Your task to perform on an android device: open sync settings in chrome Image 0: 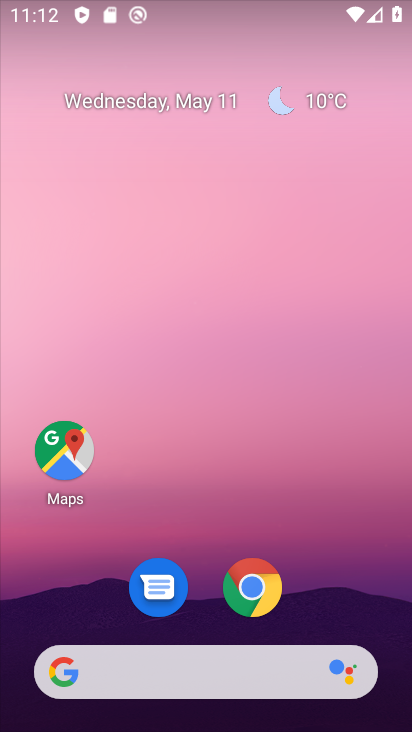
Step 0: click (265, 604)
Your task to perform on an android device: open sync settings in chrome Image 1: 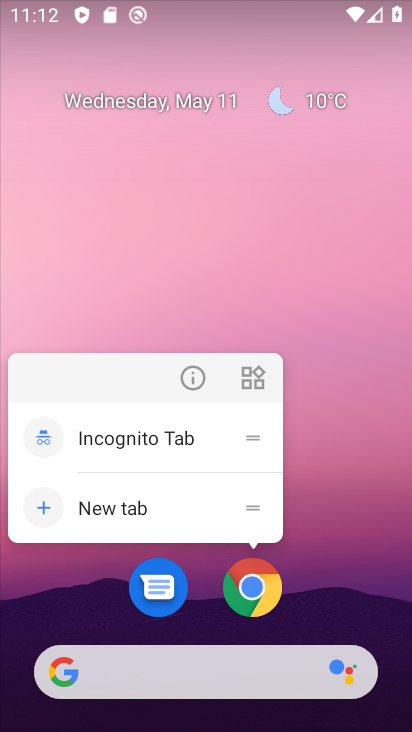
Step 1: click (246, 583)
Your task to perform on an android device: open sync settings in chrome Image 2: 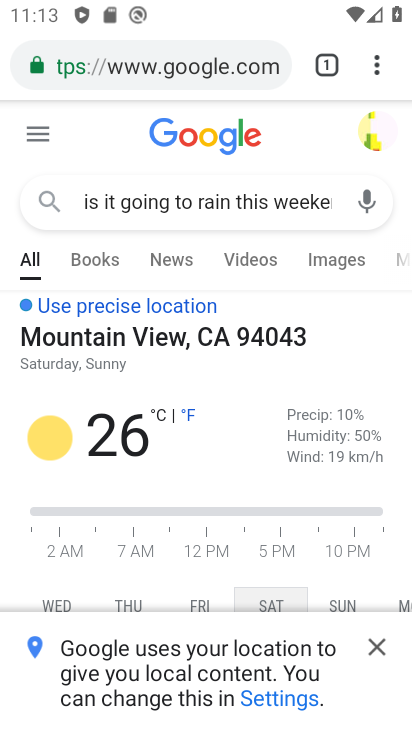
Step 2: drag from (371, 69) to (191, 648)
Your task to perform on an android device: open sync settings in chrome Image 3: 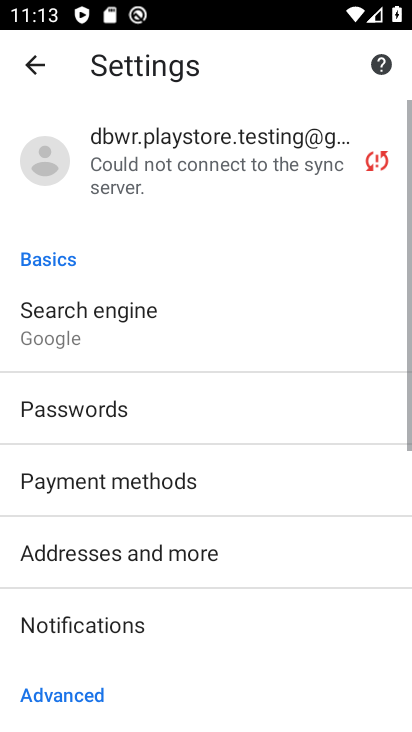
Step 3: drag from (191, 648) to (188, 287)
Your task to perform on an android device: open sync settings in chrome Image 4: 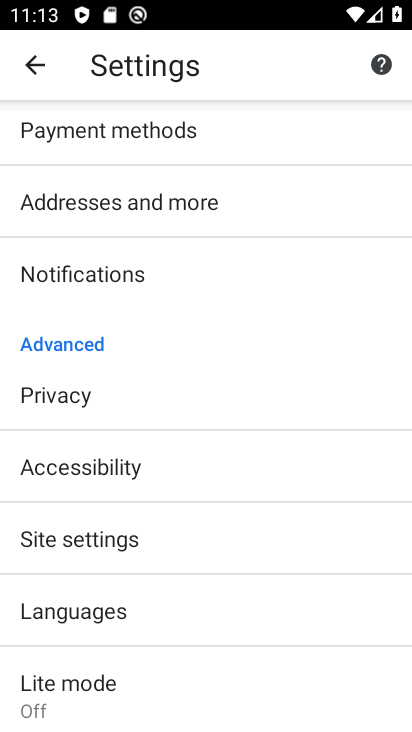
Step 4: drag from (166, 635) to (159, 398)
Your task to perform on an android device: open sync settings in chrome Image 5: 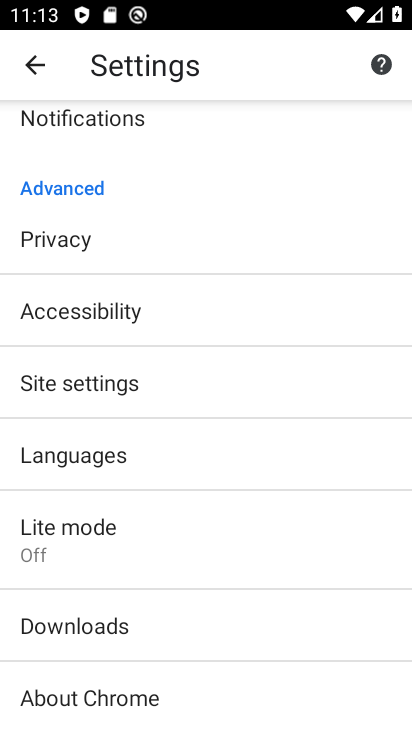
Step 5: click (142, 384)
Your task to perform on an android device: open sync settings in chrome Image 6: 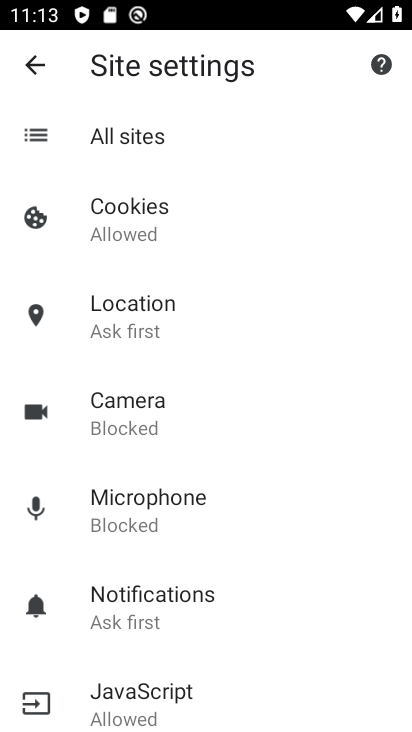
Step 6: drag from (180, 631) to (216, 407)
Your task to perform on an android device: open sync settings in chrome Image 7: 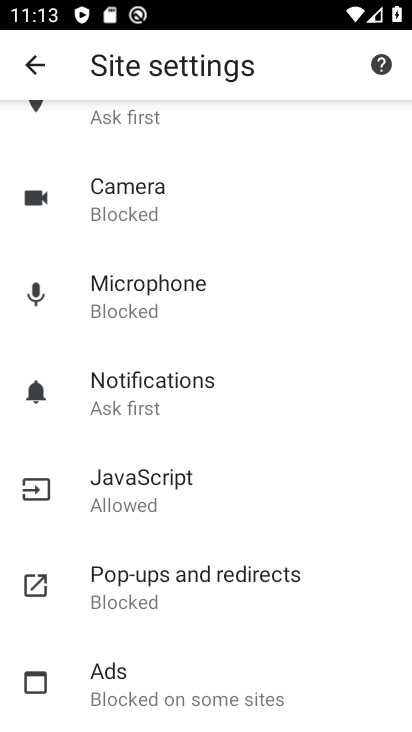
Step 7: drag from (216, 652) to (216, 332)
Your task to perform on an android device: open sync settings in chrome Image 8: 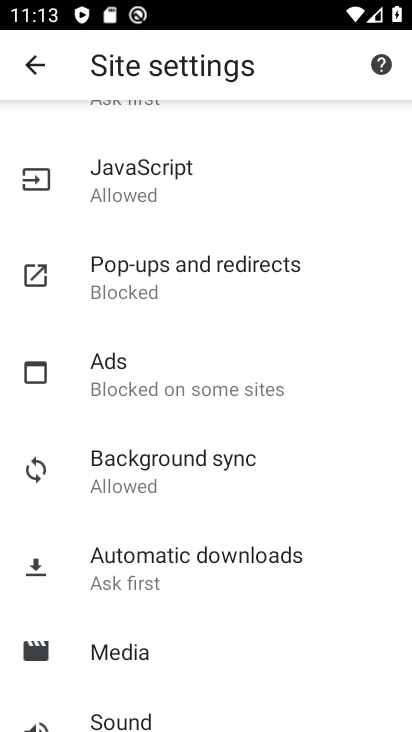
Step 8: click (186, 473)
Your task to perform on an android device: open sync settings in chrome Image 9: 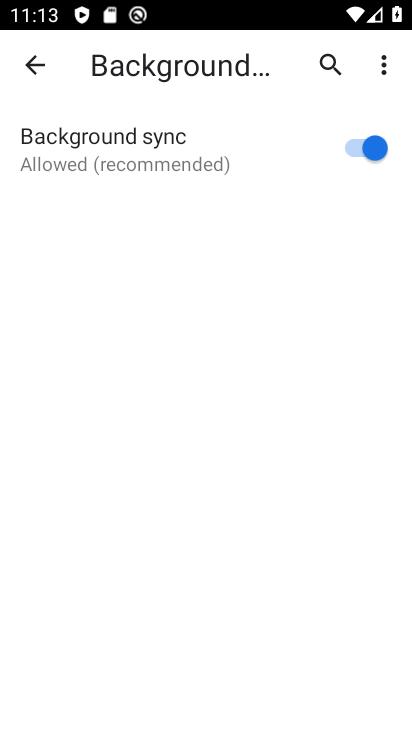
Step 9: task complete